Your task to perform on an android device: add a contact in the contacts app Image 0: 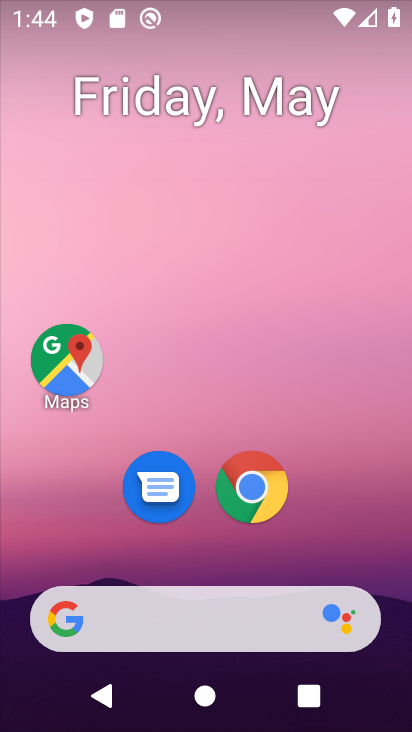
Step 0: drag from (340, 586) to (233, 8)
Your task to perform on an android device: add a contact in the contacts app Image 1: 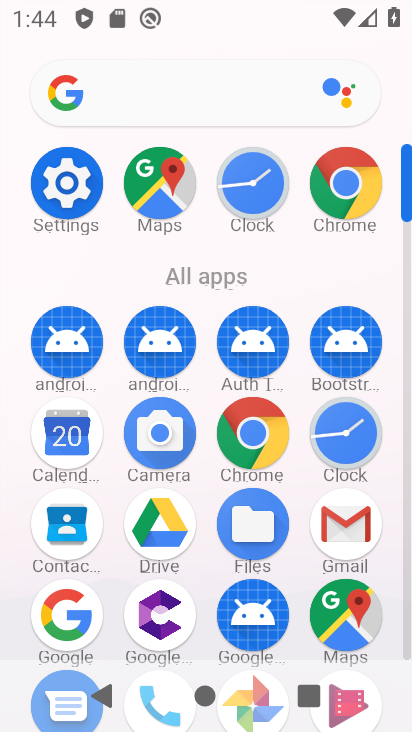
Step 1: click (73, 519)
Your task to perform on an android device: add a contact in the contacts app Image 2: 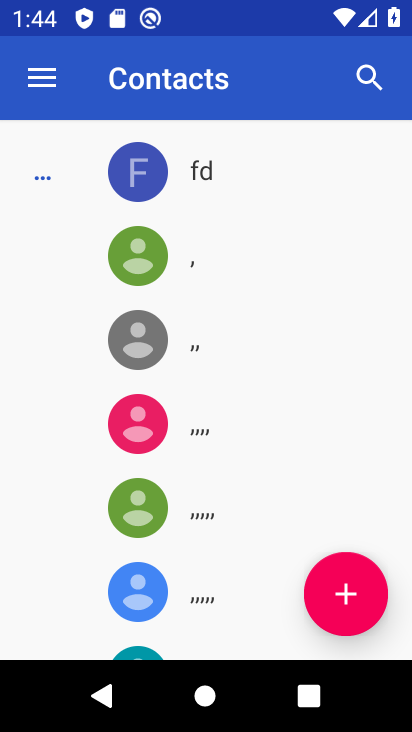
Step 2: click (347, 590)
Your task to perform on an android device: add a contact in the contacts app Image 3: 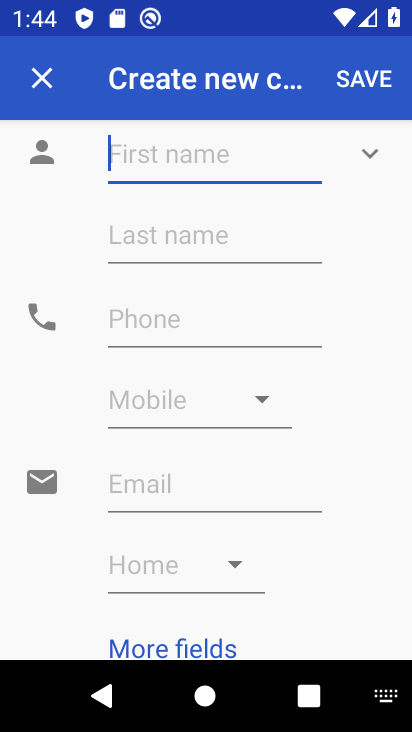
Step 3: click (126, 155)
Your task to perform on an android device: add a contact in the contacts app Image 4: 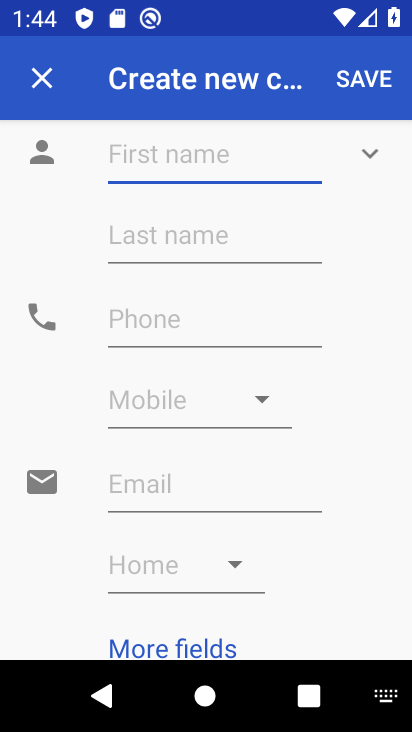
Step 4: type "alen"
Your task to perform on an android device: add a contact in the contacts app Image 5: 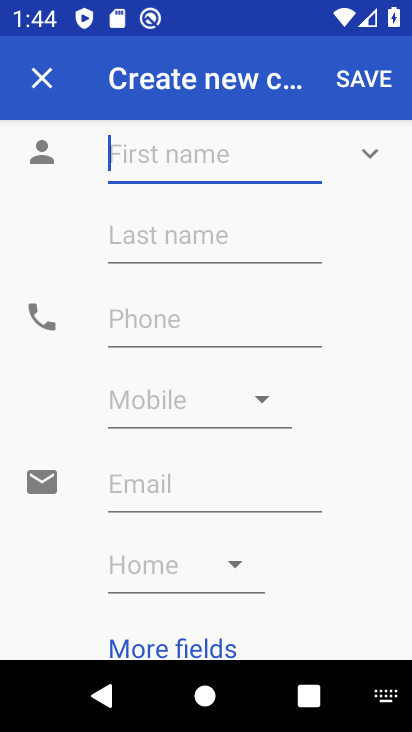
Step 5: click (217, 164)
Your task to perform on an android device: add a contact in the contacts app Image 6: 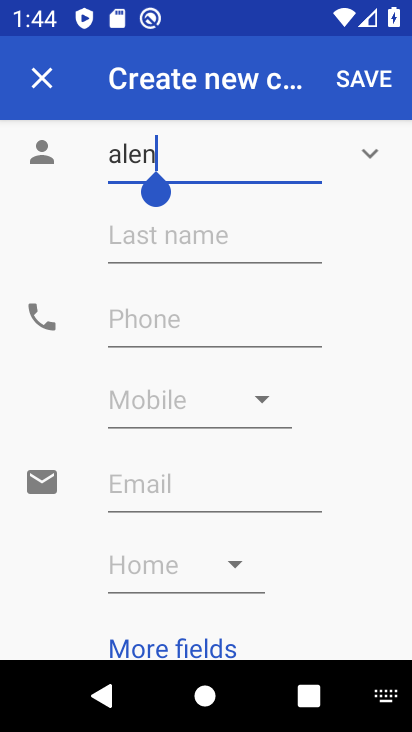
Step 6: type "allen"
Your task to perform on an android device: add a contact in the contacts app Image 7: 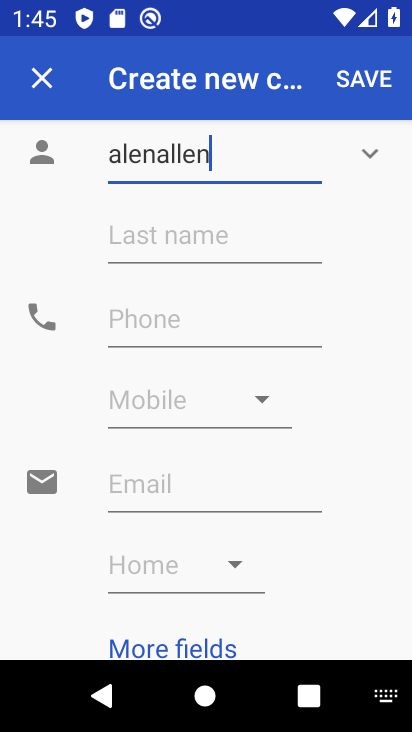
Step 7: click (162, 334)
Your task to perform on an android device: add a contact in the contacts app Image 8: 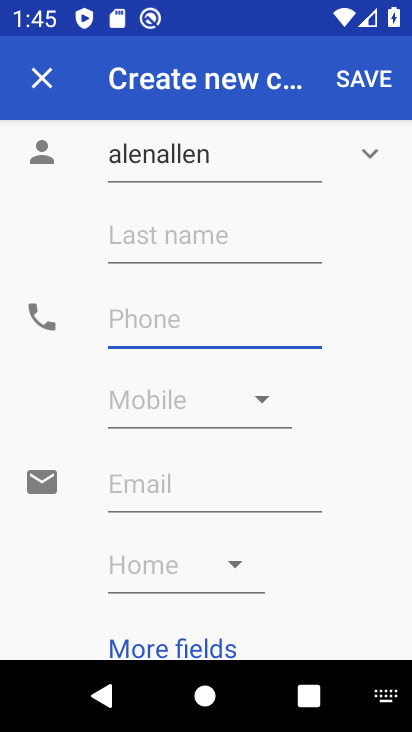
Step 8: type "456788876"
Your task to perform on an android device: add a contact in the contacts app Image 9: 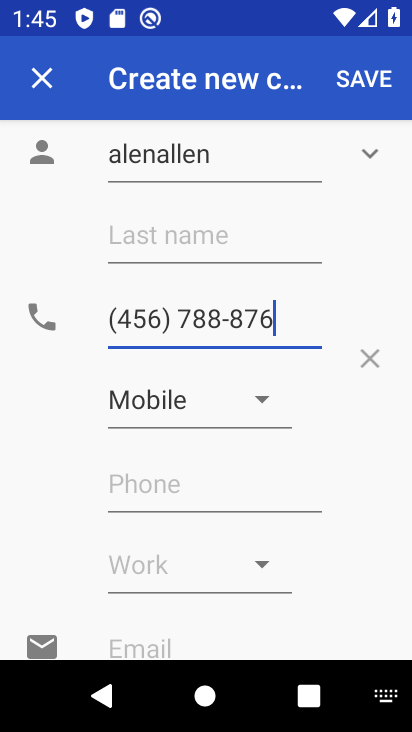
Step 9: click (390, 85)
Your task to perform on an android device: add a contact in the contacts app Image 10: 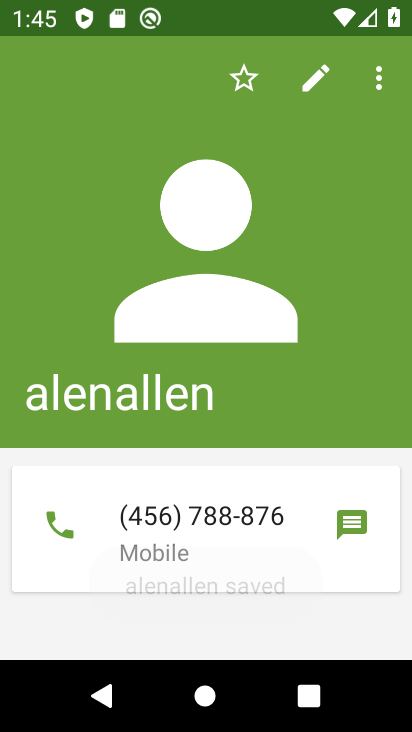
Step 10: task complete